Your task to perform on an android device: toggle javascript in the chrome app Image 0: 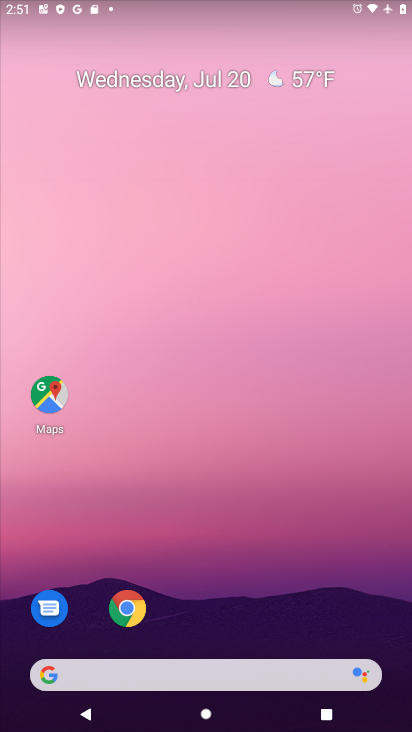
Step 0: click (128, 611)
Your task to perform on an android device: toggle javascript in the chrome app Image 1: 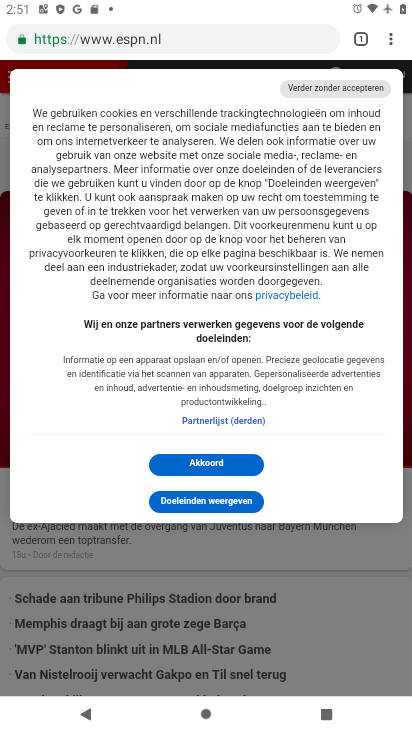
Step 1: click (389, 36)
Your task to perform on an android device: toggle javascript in the chrome app Image 2: 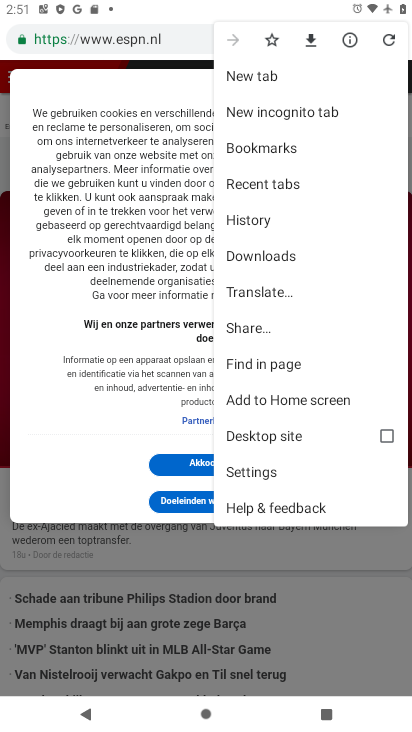
Step 2: click (264, 477)
Your task to perform on an android device: toggle javascript in the chrome app Image 3: 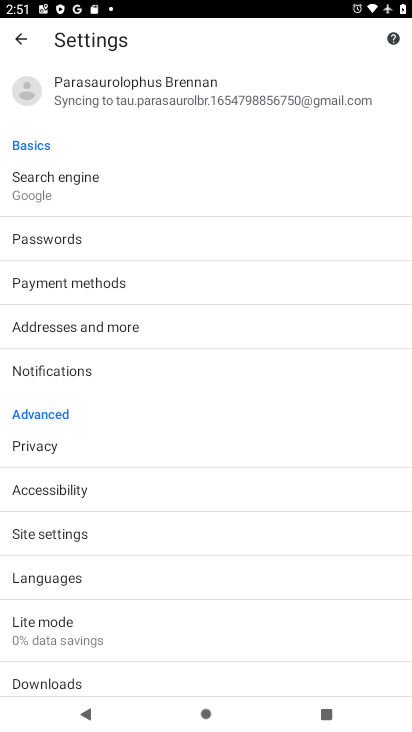
Step 3: click (57, 538)
Your task to perform on an android device: toggle javascript in the chrome app Image 4: 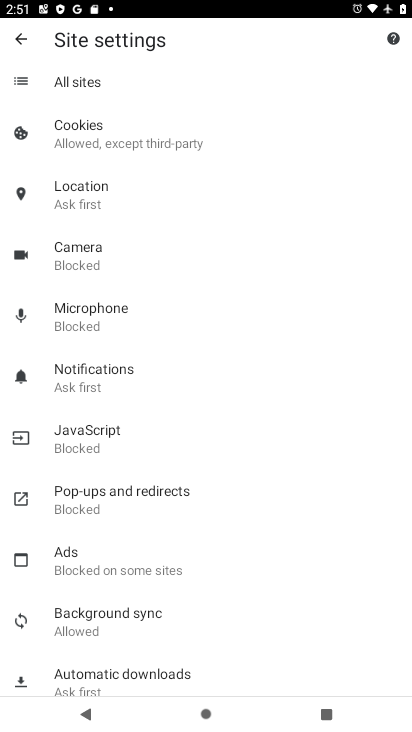
Step 4: click (94, 437)
Your task to perform on an android device: toggle javascript in the chrome app Image 5: 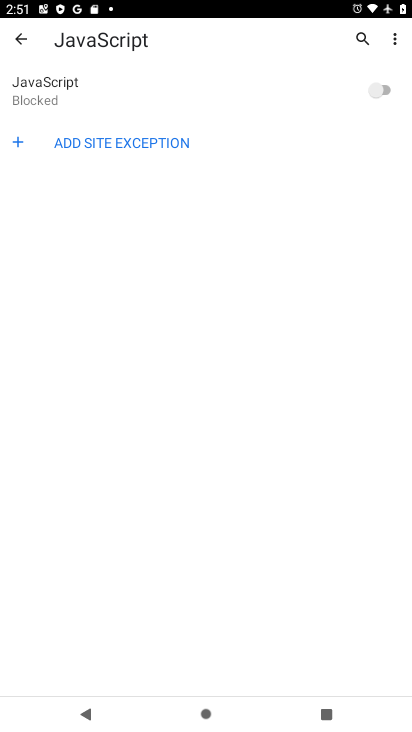
Step 5: click (391, 90)
Your task to perform on an android device: toggle javascript in the chrome app Image 6: 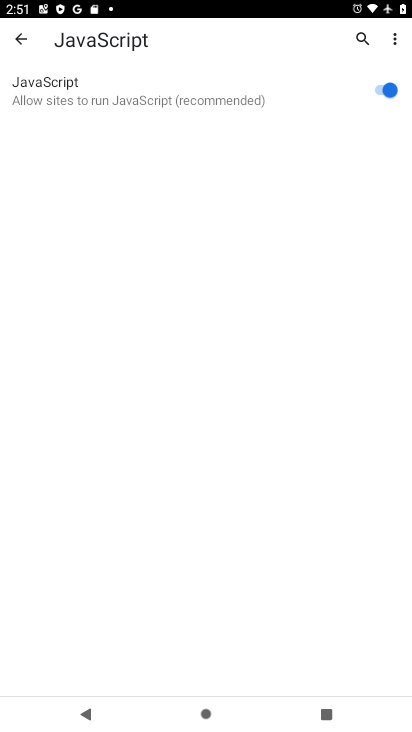
Step 6: task complete